Your task to perform on an android device: Open settings on Google Maps Image 0: 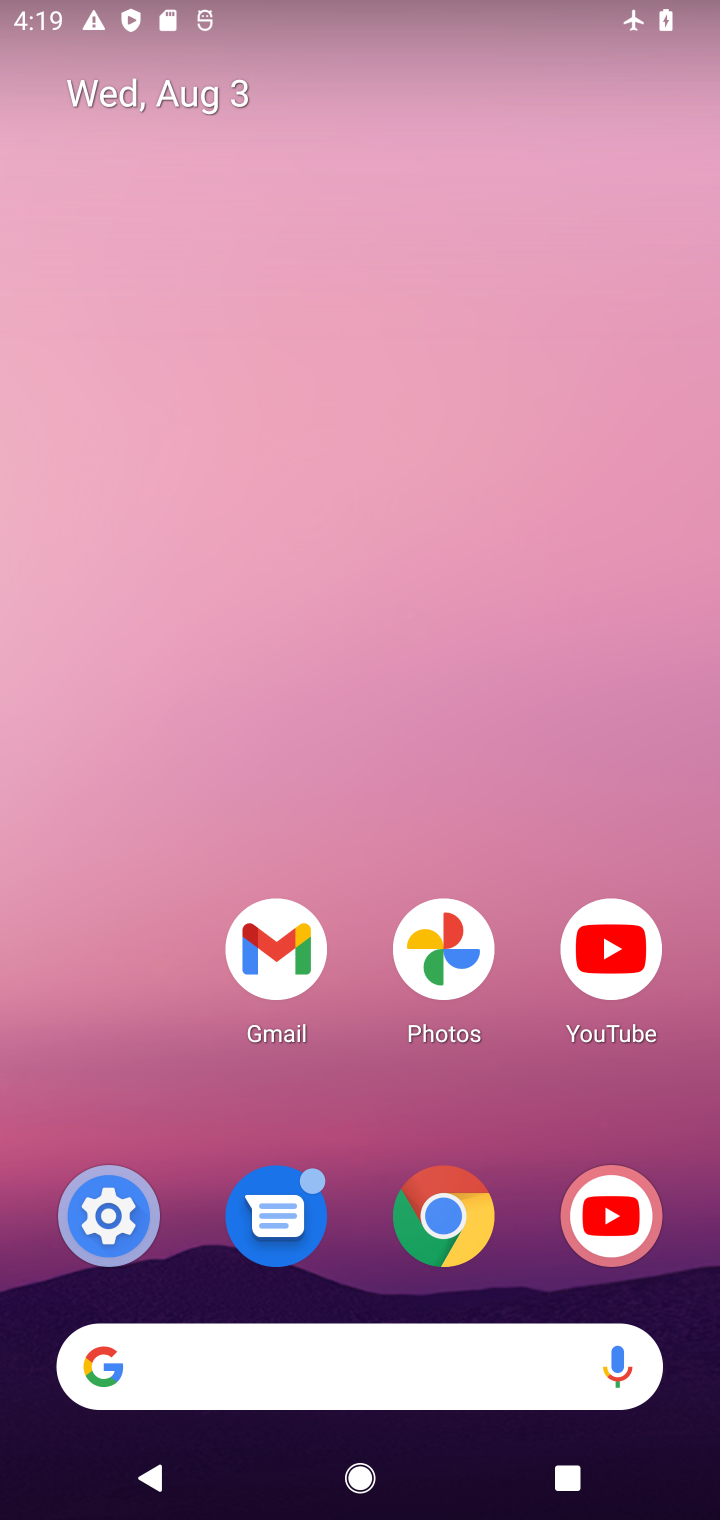
Step 0: click (507, 105)
Your task to perform on an android device: Open settings on Google Maps Image 1: 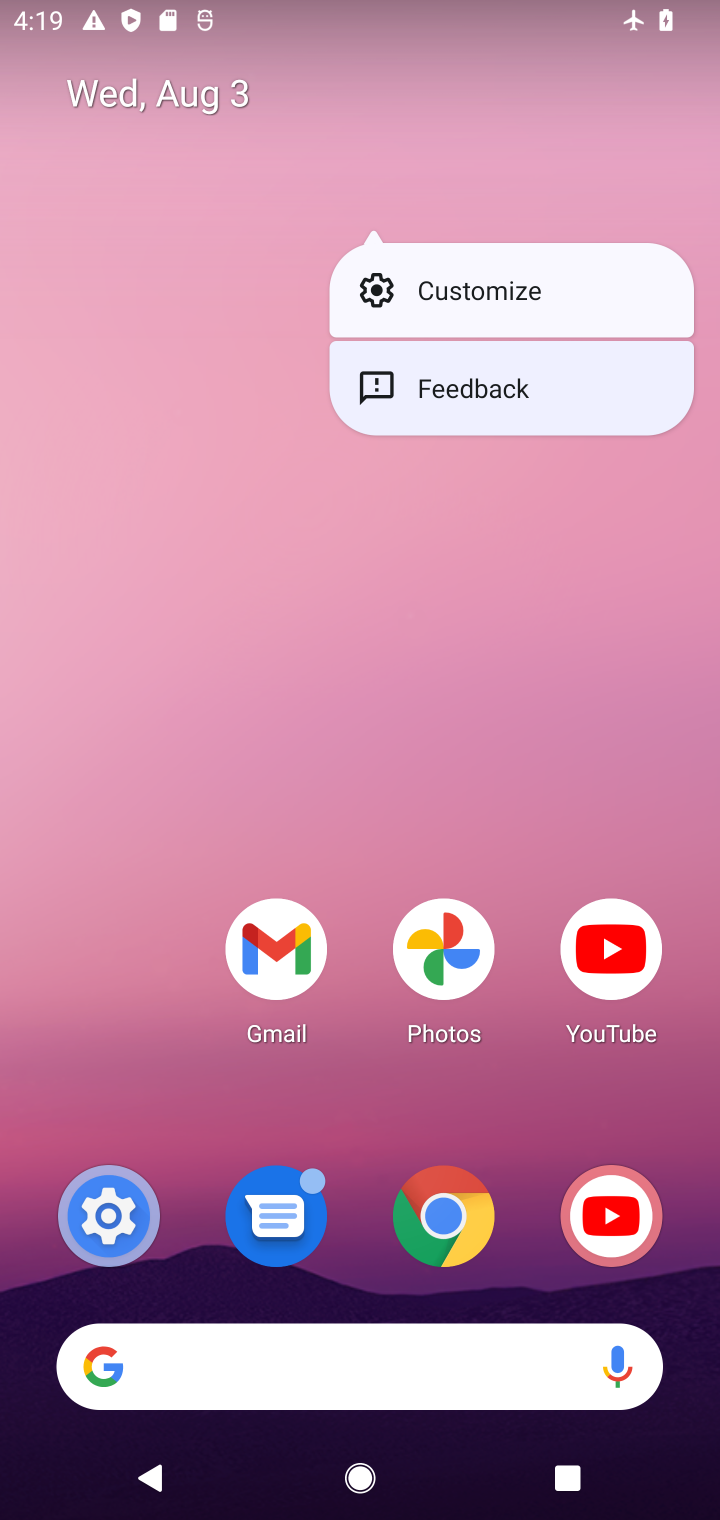
Step 1: click (198, 727)
Your task to perform on an android device: Open settings on Google Maps Image 2: 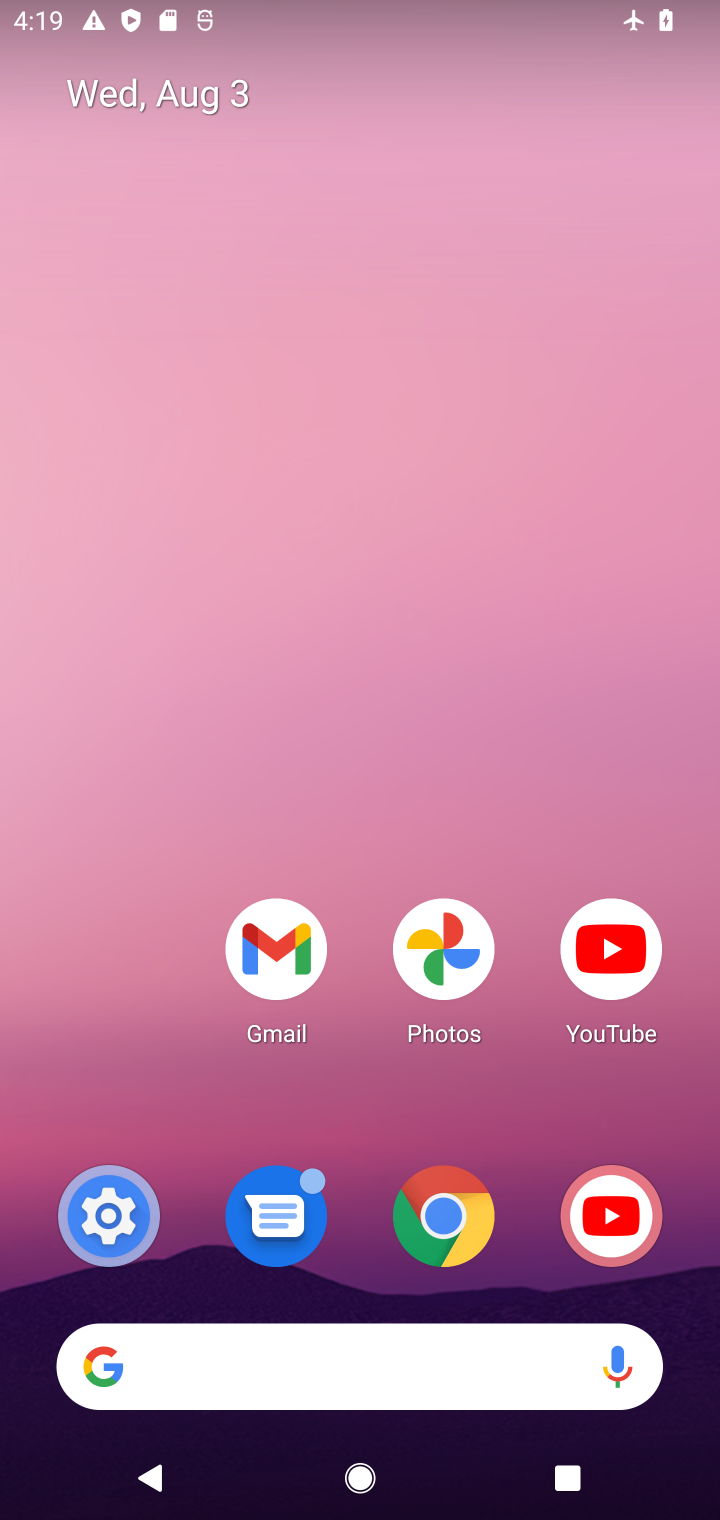
Step 2: drag from (129, 989) to (131, 25)
Your task to perform on an android device: Open settings on Google Maps Image 3: 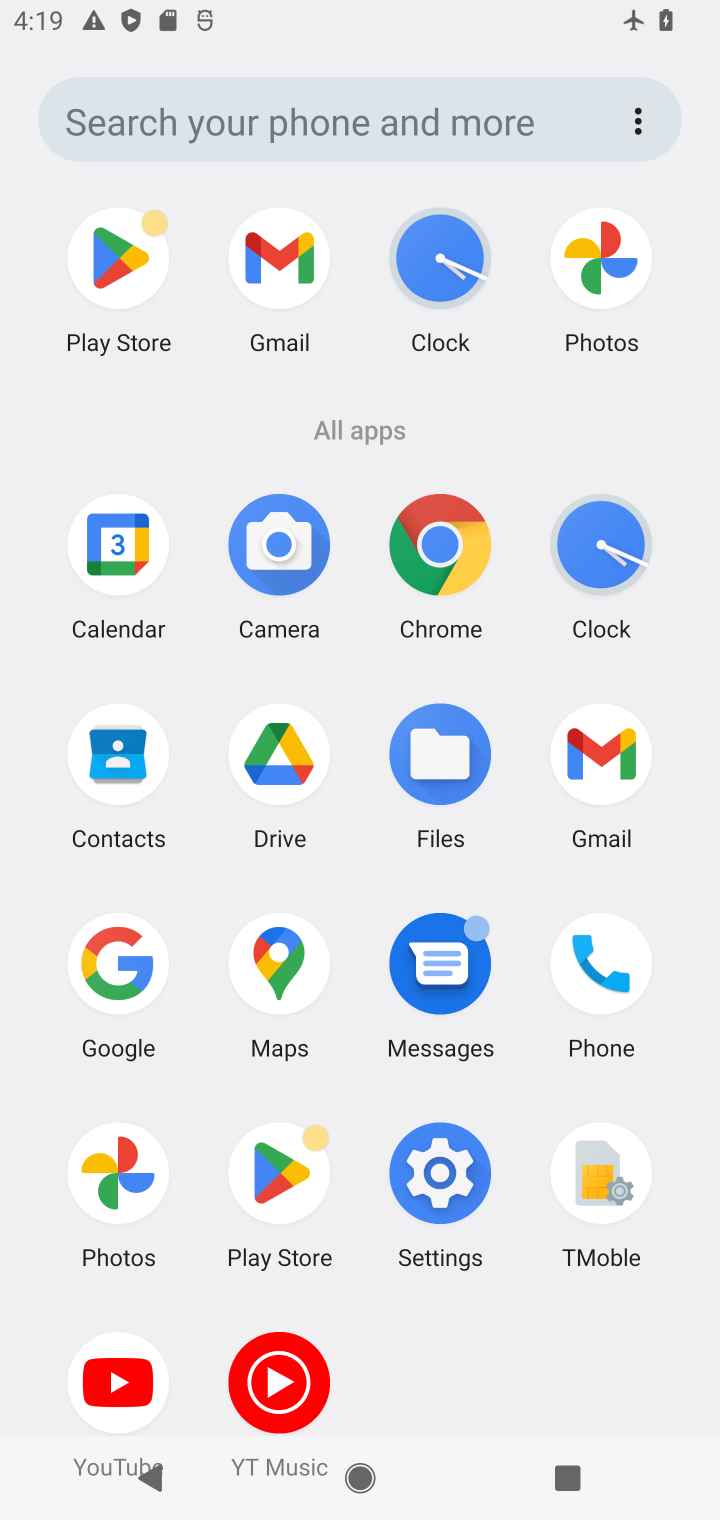
Step 3: click (267, 964)
Your task to perform on an android device: Open settings on Google Maps Image 4: 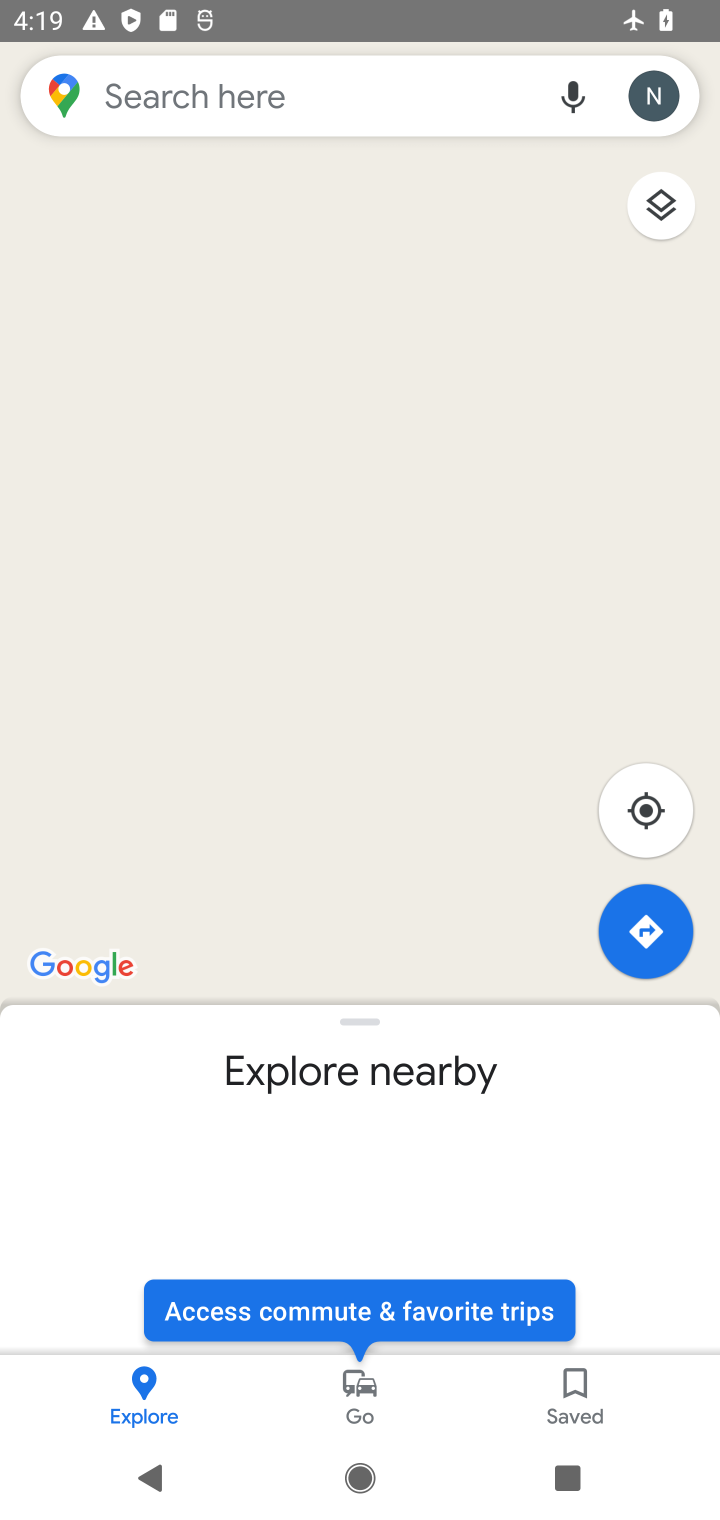
Step 4: click (656, 83)
Your task to perform on an android device: Open settings on Google Maps Image 5: 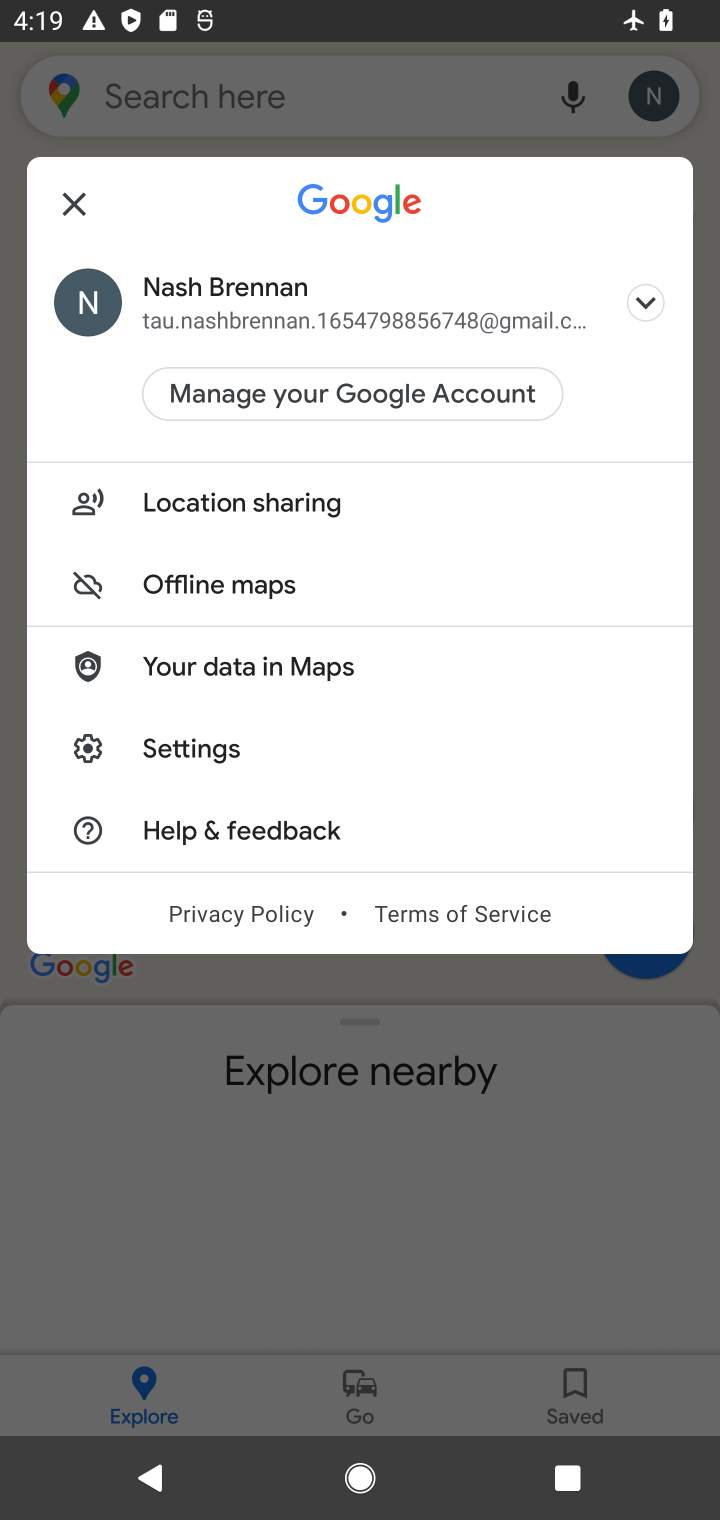
Step 5: click (206, 741)
Your task to perform on an android device: Open settings on Google Maps Image 6: 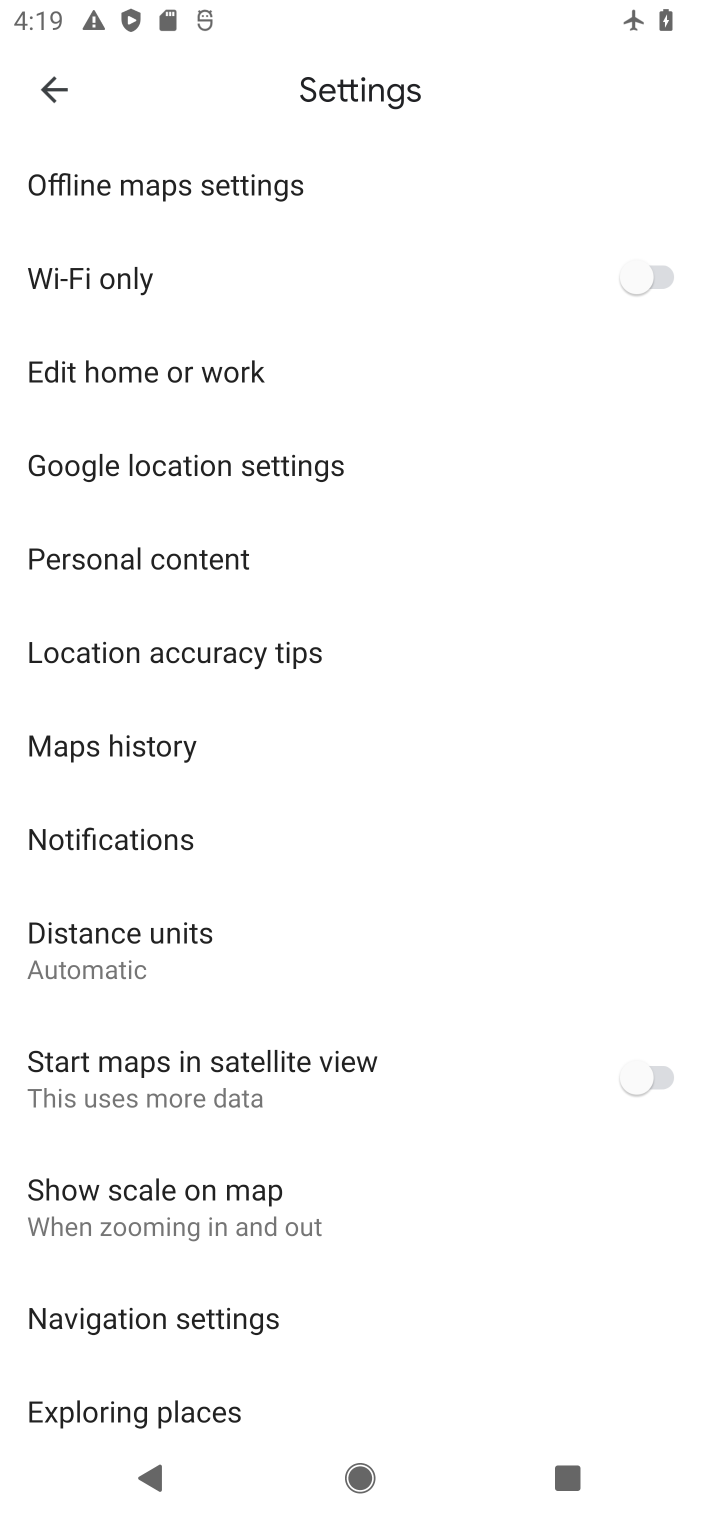
Step 6: task complete